Your task to perform on an android device: Open the phone app and click the voicemail tab. Image 0: 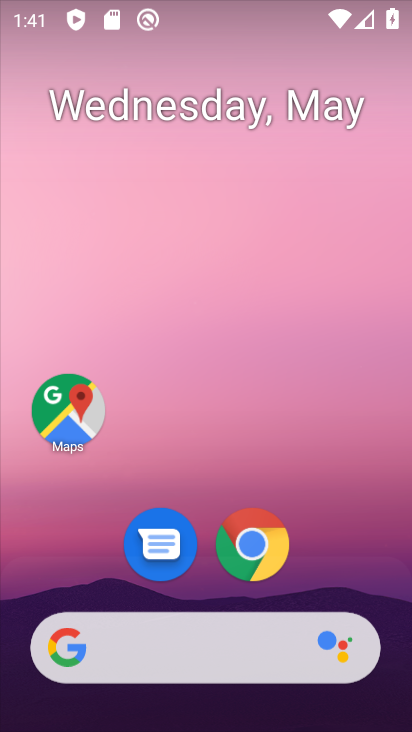
Step 0: drag from (393, 611) to (334, 106)
Your task to perform on an android device: Open the phone app and click the voicemail tab. Image 1: 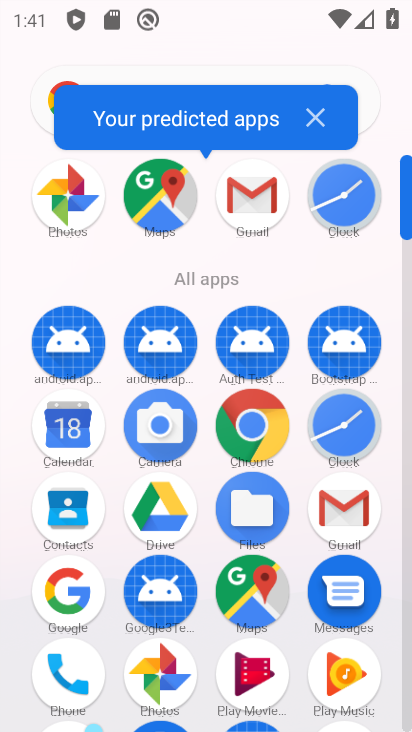
Step 1: click (51, 661)
Your task to perform on an android device: Open the phone app and click the voicemail tab. Image 2: 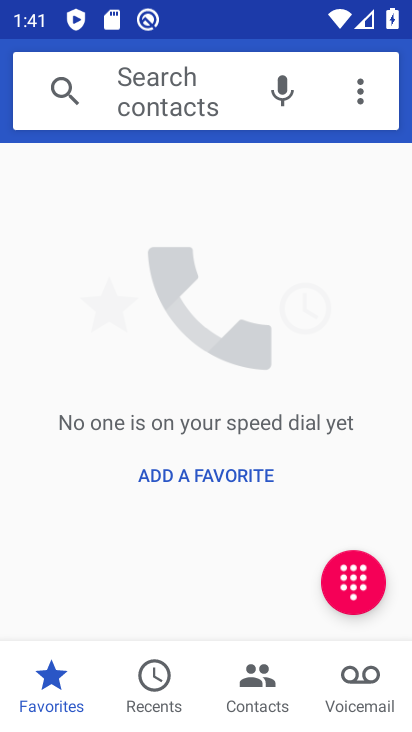
Step 2: click (365, 682)
Your task to perform on an android device: Open the phone app and click the voicemail tab. Image 3: 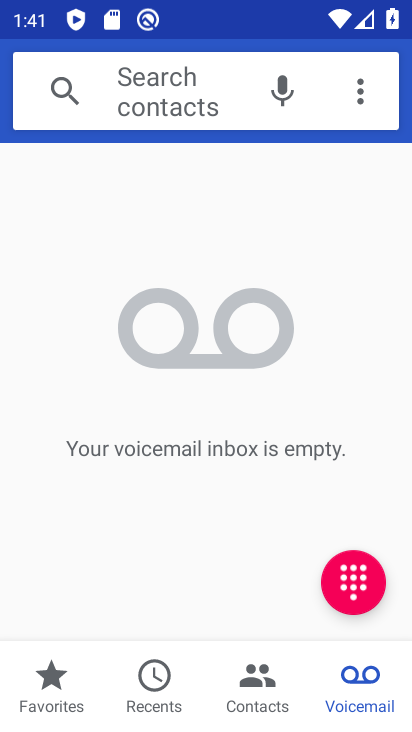
Step 3: task complete